Your task to perform on an android device: Open wifi settings Image 0: 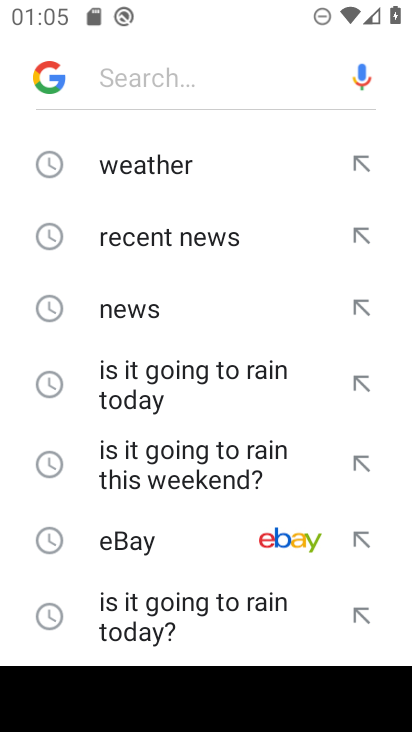
Step 0: press home button
Your task to perform on an android device: Open wifi settings Image 1: 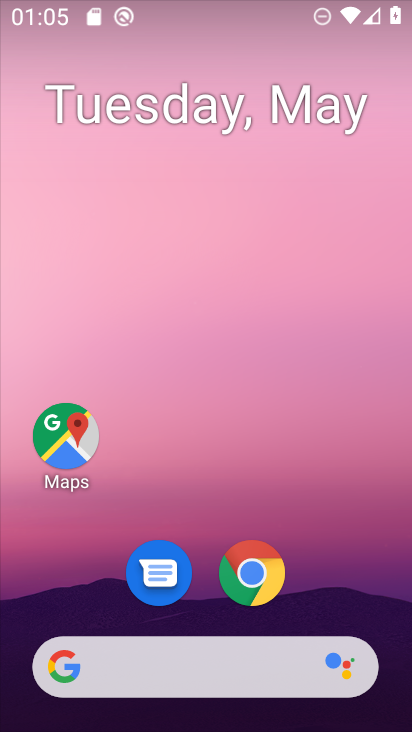
Step 1: drag from (274, 218) to (203, 14)
Your task to perform on an android device: Open wifi settings Image 2: 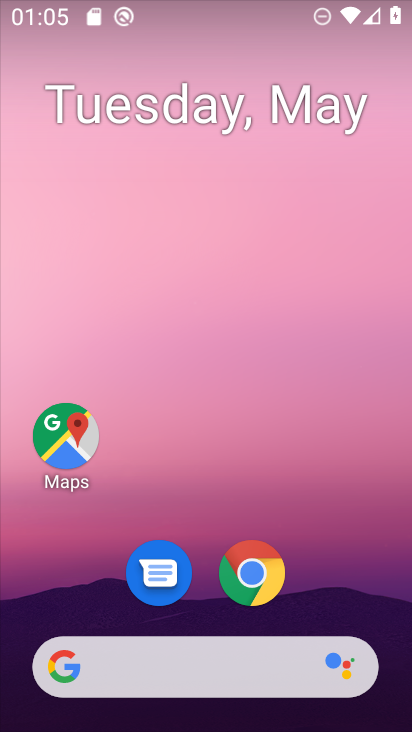
Step 2: drag from (338, 587) to (241, 57)
Your task to perform on an android device: Open wifi settings Image 3: 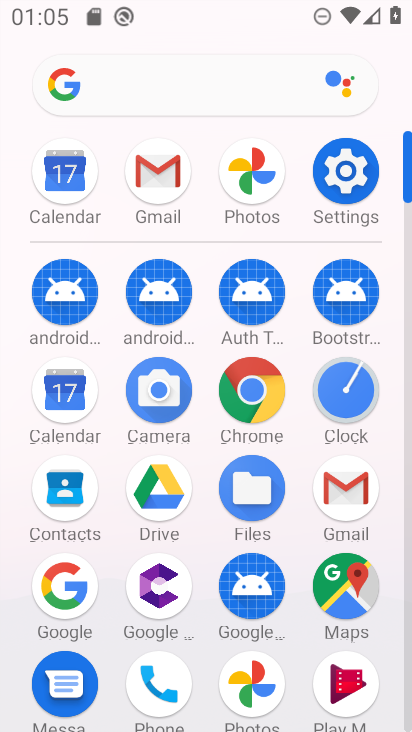
Step 3: click (352, 162)
Your task to perform on an android device: Open wifi settings Image 4: 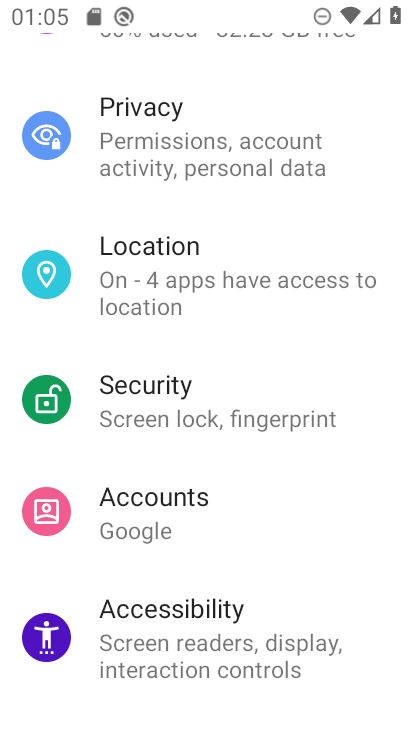
Step 4: drag from (352, 222) to (268, 610)
Your task to perform on an android device: Open wifi settings Image 5: 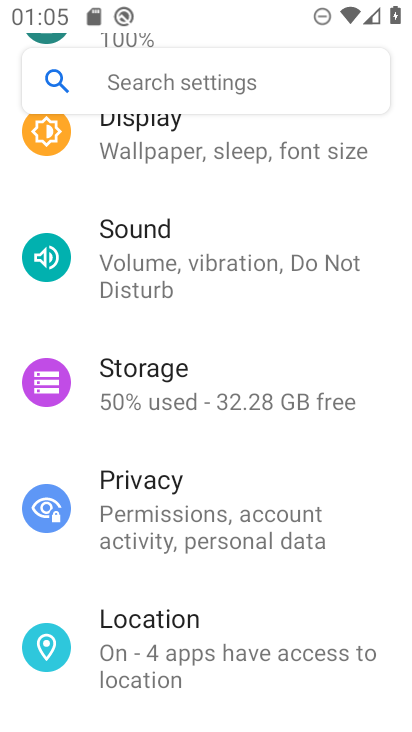
Step 5: drag from (265, 104) to (236, 482)
Your task to perform on an android device: Open wifi settings Image 6: 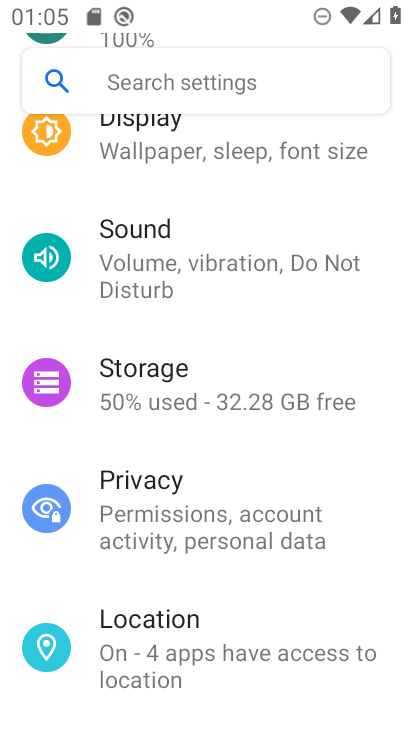
Step 6: drag from (234, 163) to (226, 500)
Your task to perform on an android device: Open wifi settings Image 7: 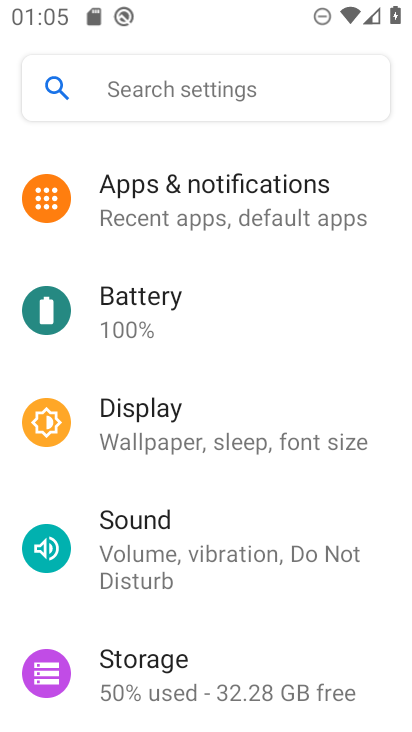
Step 7: drag from (237, 219) to (185, 585)
Your task to perform on an android device: Open wifi settings Image 8: 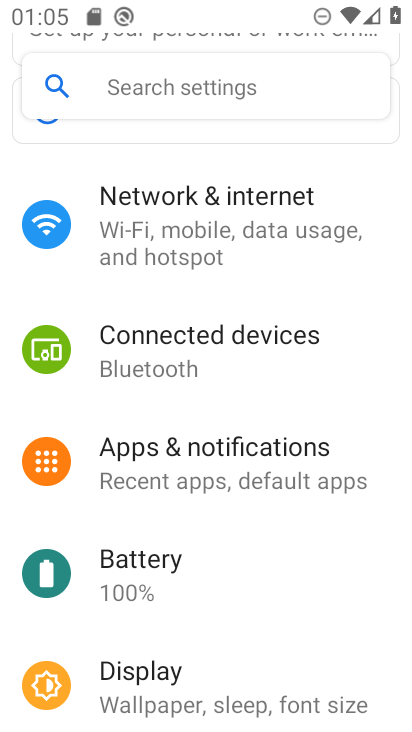
Step 8: click (222, 212)
Your task to perform on an android device: Open wifi settings Image 9: 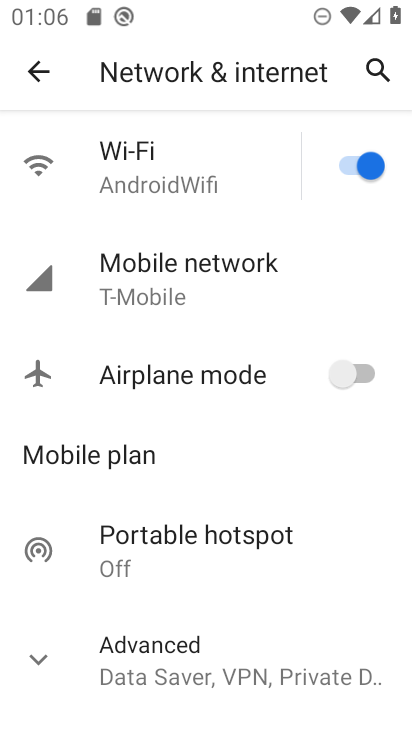
Step 9: click (162, 144)
Your task to perform on an android device: Open wifi settings Image 10: 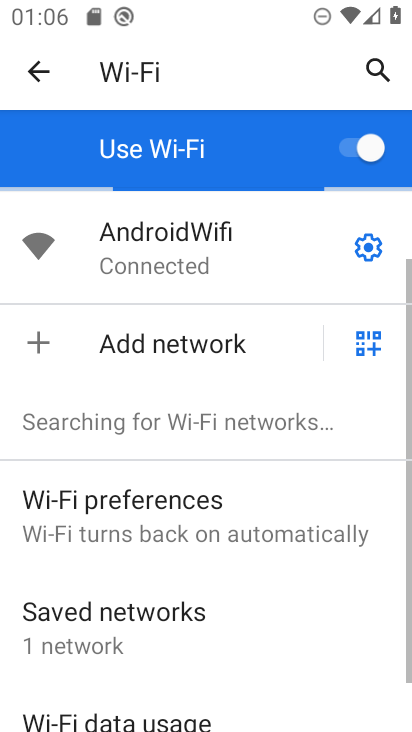
Step 10: task complete